Your task to perform on an android device: set default search engine in the chrome app Image 0: 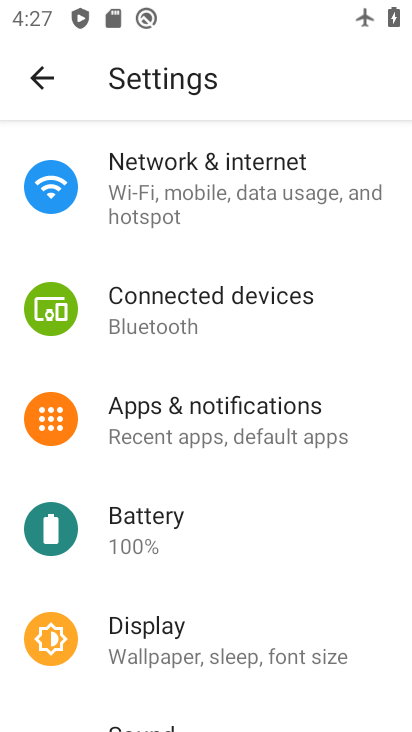
Step 0: press back button
Your task to perform on an android device: set default search engine in the chrome app Image 1: 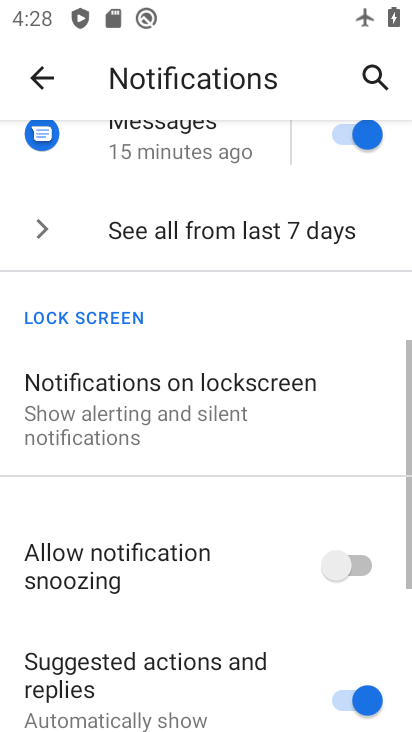
Step 1: press back button
Your task to perform on an android device: set default search engine in the chrome app Image 2: 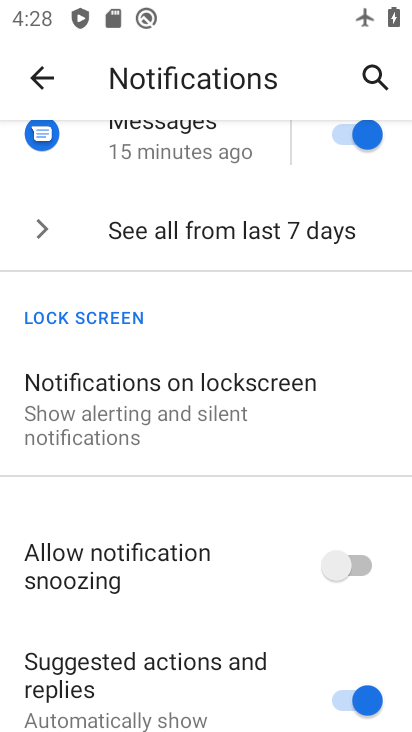
Step 2: press home button
Your task to perform on an android device: set default search engine in the chrome app Image 3: 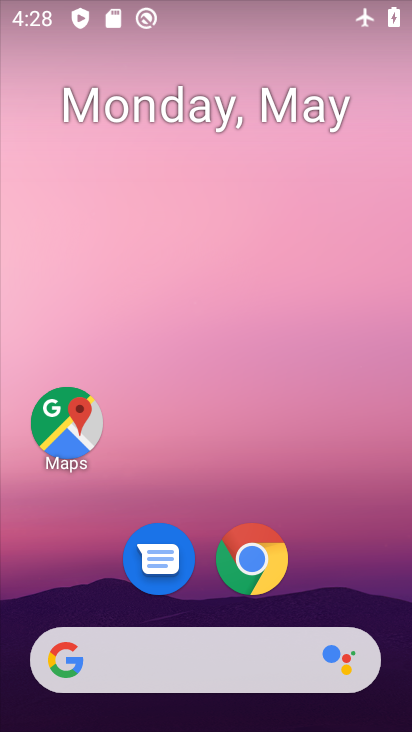
Step 3: drag from (341, 614) to (275, 9)
Your task to perform on an android device: set default search engine in the chrome app Image 4: 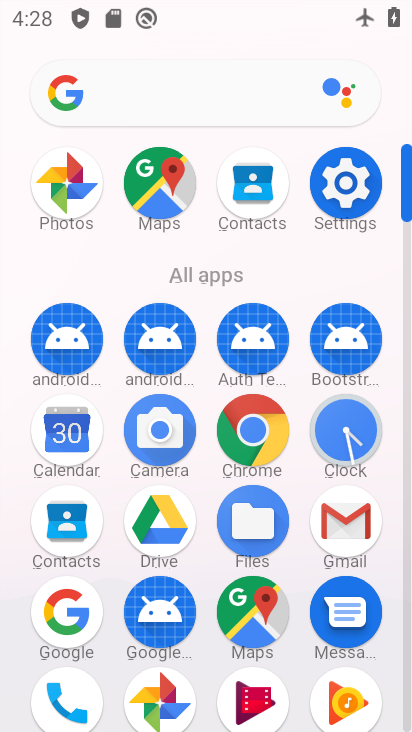
Step 4: click (251, 430)
Your task to perform on an android device: set default search engine in the chrome app Image 5: 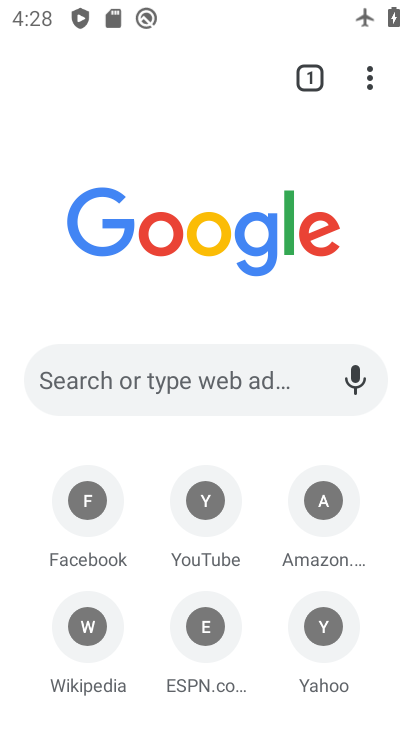
Step 5: drag from (370, 71) to (147, 617)
Your task to perform on an android device: set default search engine in the chrome app Image 6: 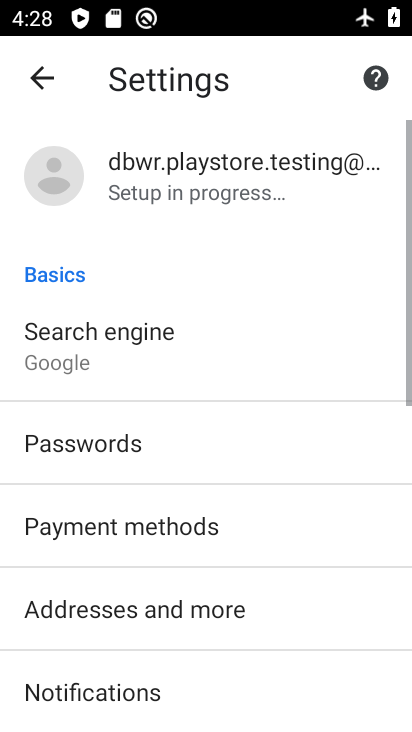
Step 6: drag from (255, 720) to (259, 225)
Your task to perform on an android device: set default search engine in the chrome app Image 7: 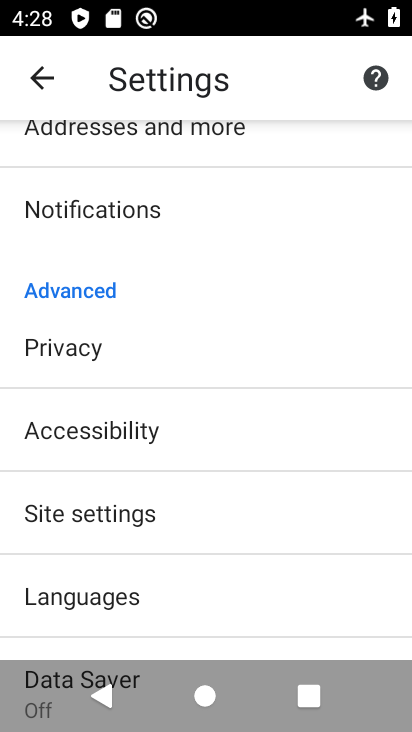
Step 7: drag from (266, 566) to (279, 198)
Your task to perform on an android device: set default search engine in the chrome app Image 8: 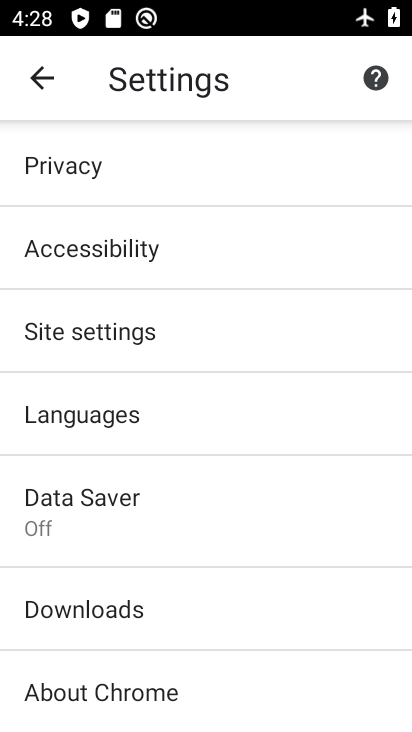
Step 8: drag from (210, 570) to (250, 234)
Your task to perform on an android device: set default search engine in the chrome app Image 9: 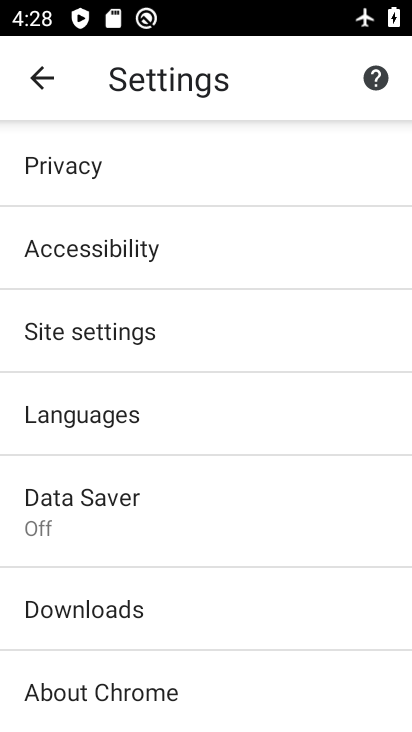
Step 9: drag from (314, 222) to (308, 606)
Your task to perform on an android device: set default search engine in the chrome app Image 10: 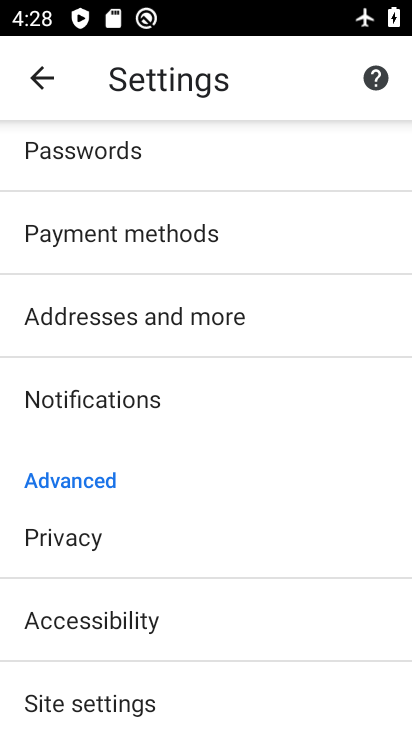
Step 10: drag from (216, 593) to (232, 297)
Your task to perform on an android device: set default search engine in the chrome app Image 11: 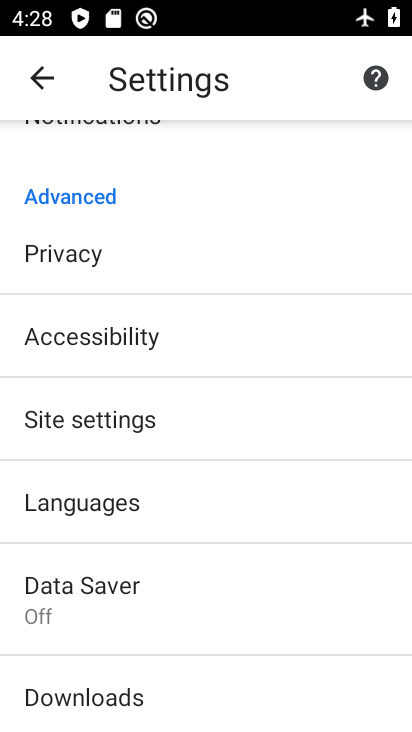
Step 11: click (154, 417)
Your task to perform on an android device: set default search engine in the chrome app Image 12: 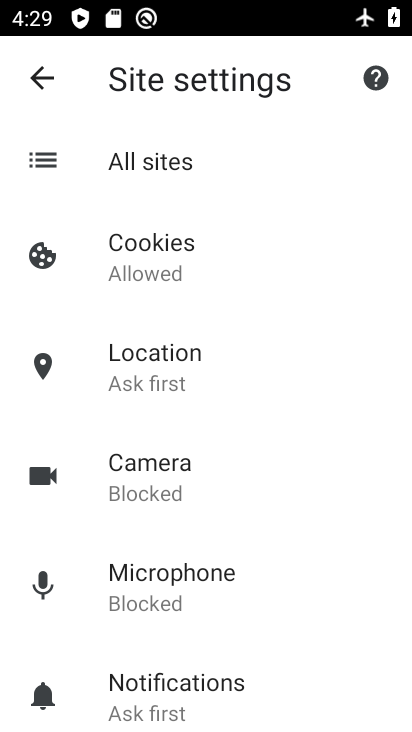
Step 12: drag from (277, 230) to (281, 148)
Your task to perform on an android device: set default search engine in the chrome app Image 13: 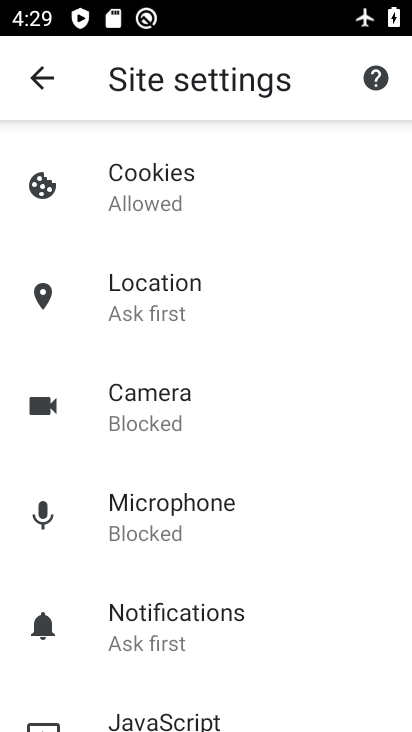
Step 13: drag from (273, 545) to (270, 255)
Your task to perform on an android device: set default search engine in the chrome app Image 14: 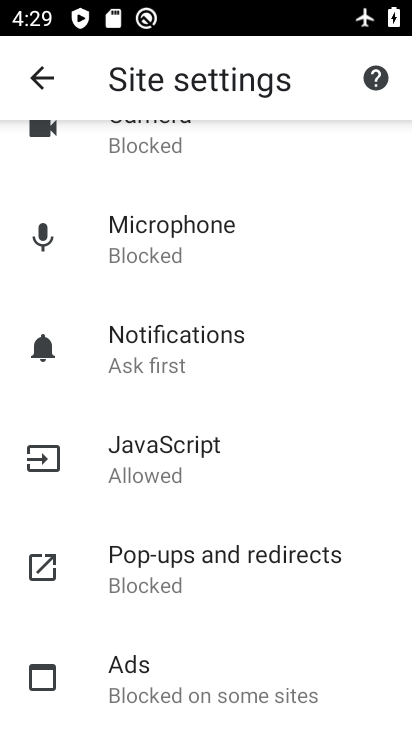
Step 14: click (45, 79)
Your task to perform on an android device: set default search engine in the chrome app Image 15: 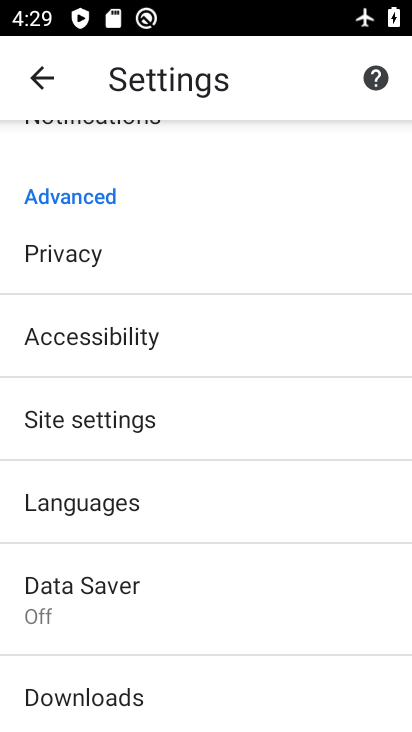
Step 15: drag from (150, 636) to (204, 192)
Your task to perform on an android device: set default search engine in the chrome app Image 16: 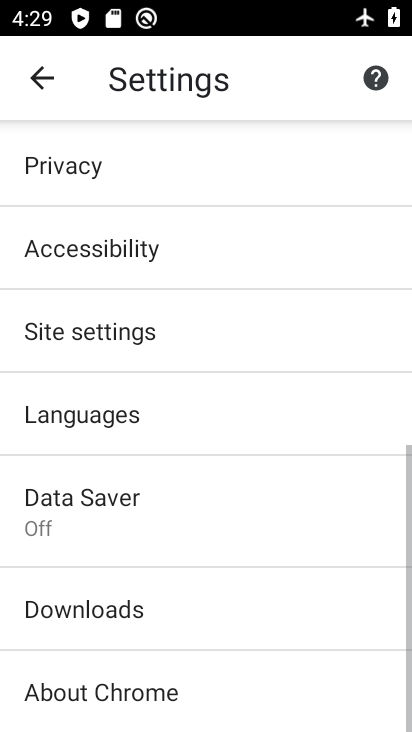
Step 16: drag from (214, 606) to (271, 206)
Your task to perform on an android device: set default search engine in the chrome app Image 17: 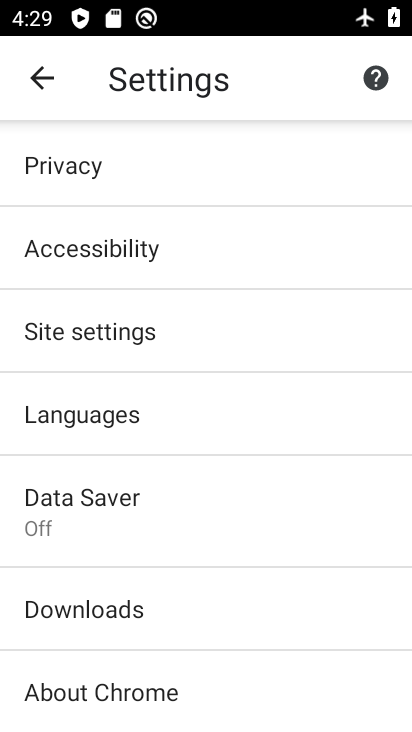
Step 17: drag from (270, 222) to (208, 698)
Your task to perform on an android device: set default search engine in the chrome app Image 18: 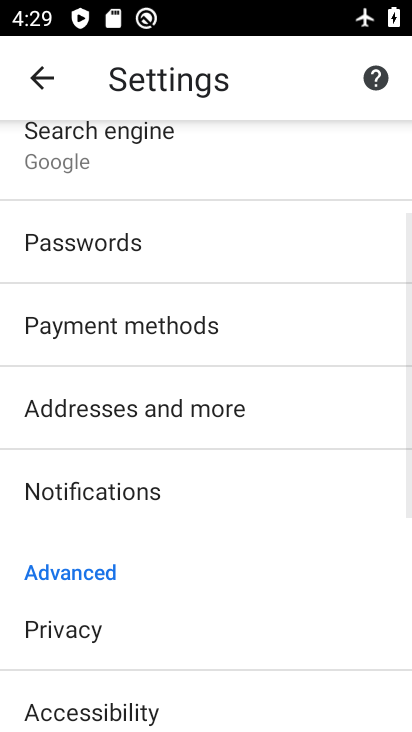
Step 18: drag from (232, 263) to (236, 594)
Your task to perform on an android device: set default search engine in the chrome app Image 19: 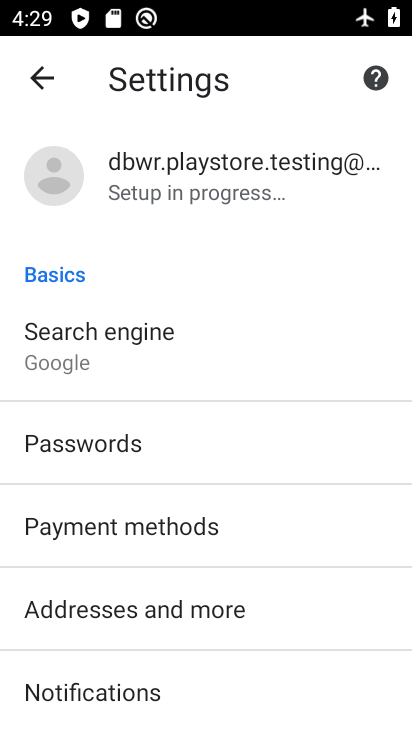
Step 19: click (197, 354)
Your task to perform on an android device: set default search engine in the chrome app Image 20: 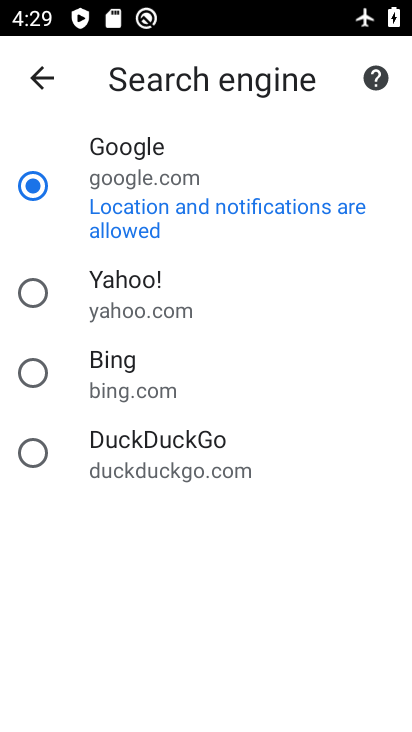
Step 20: task complete